Your task to perform on an android device: Open calendar and show me the third week of next month Image 0: 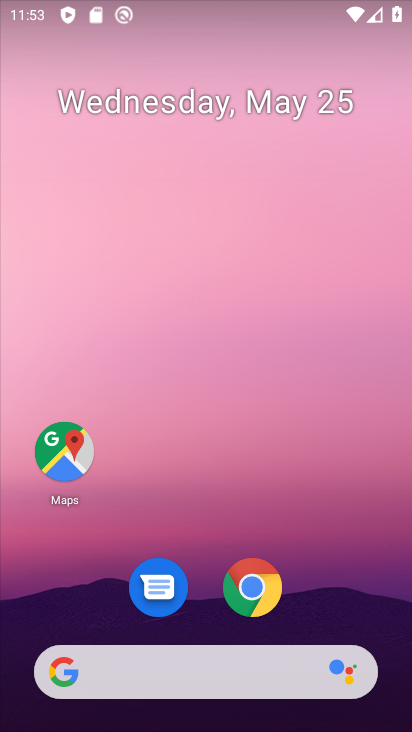
Step 0: drag from (201, 618) to (254, 123)
Your task to perform on an android device: Open calendar and show me the third week of next month Image 1: 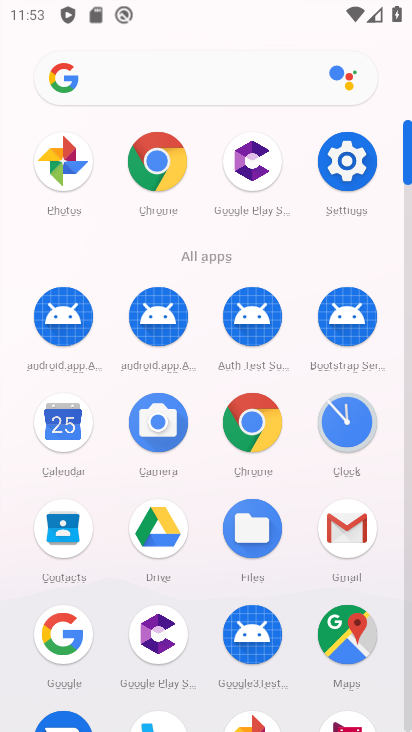
Step 1: click (63, 425)
Your task to perform on an android device: Open calendar and show me the third week of next month Image 2: 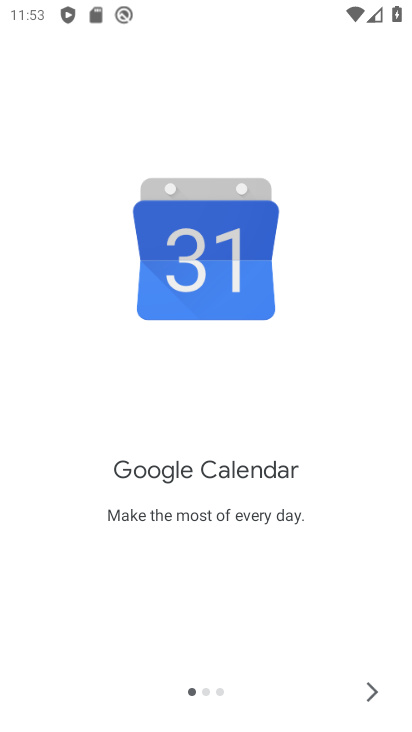
Step 2: click (362, 682)
Your task to perform on an android device: Open calendar and show me the third week of next month Image 3: 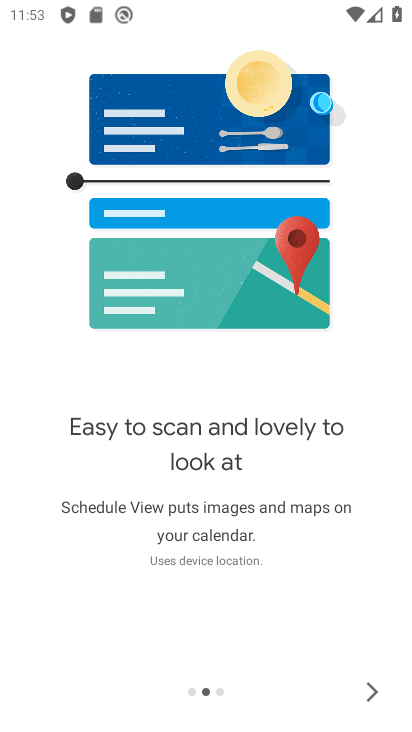
Step 3: click (362, 682)
Your task to perform on an android device: Open calendar and show me the third week of next month Image 4: 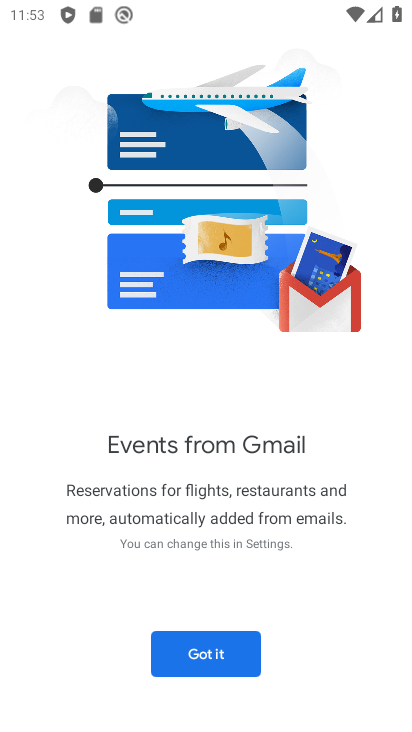
Step 4: click (209, 661)
Your task to perform on an android device: Open calendar and show me the third week of next month Image 5: 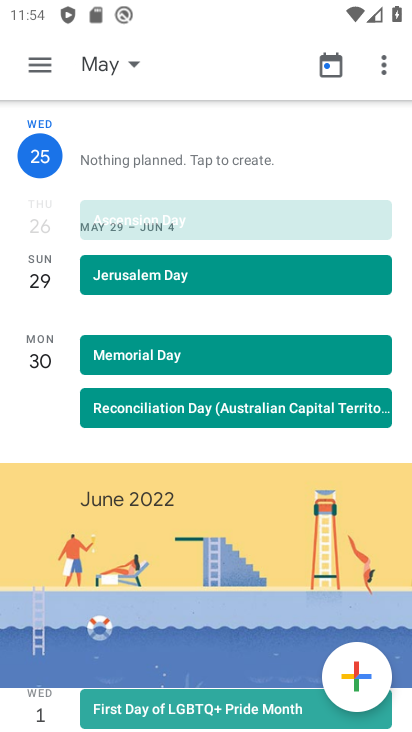
Step 5: click (136, 62)
Your task to perform on an android device: Open calendar and show me the third week of next month Image 6: 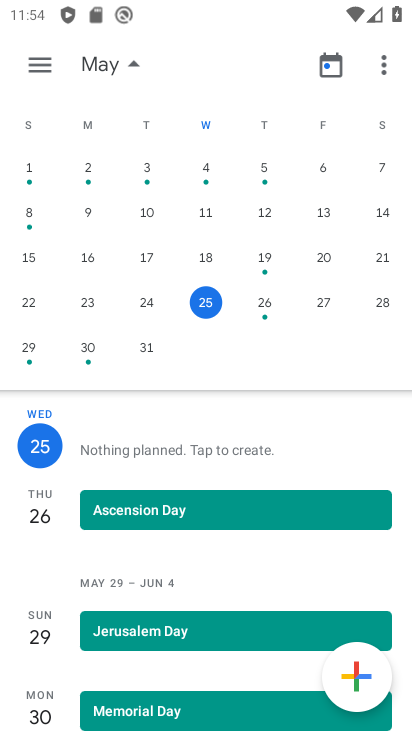
Step 6: drag from (350, 247) to (33, 235)
Your task to perform on an android device: Open calendar and show me the third week of next month Image 7: 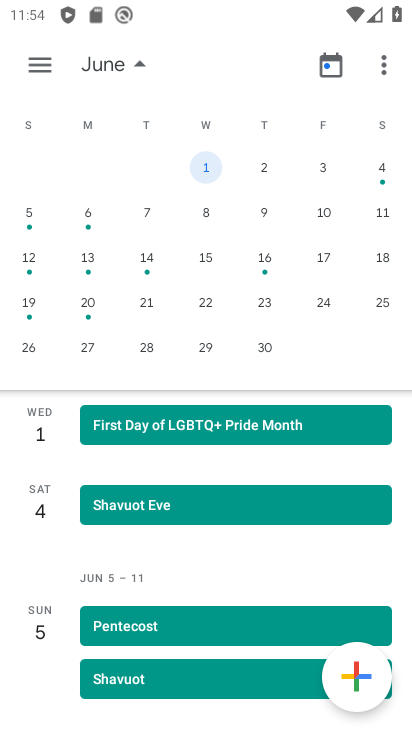
Step 7: click (33, 254)
Your task to perform on an android device: Open calendar and show me the third week of next month Image 8: 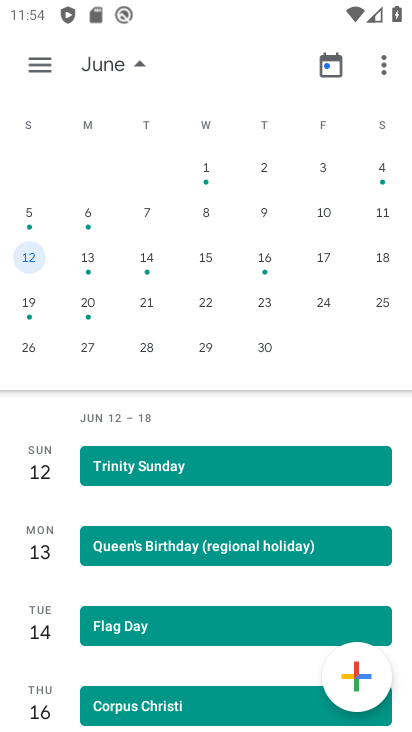
Step 8: click (137, 66)
Your task to perform on an android device: Open calendar and show me the third week of next month Image 9: 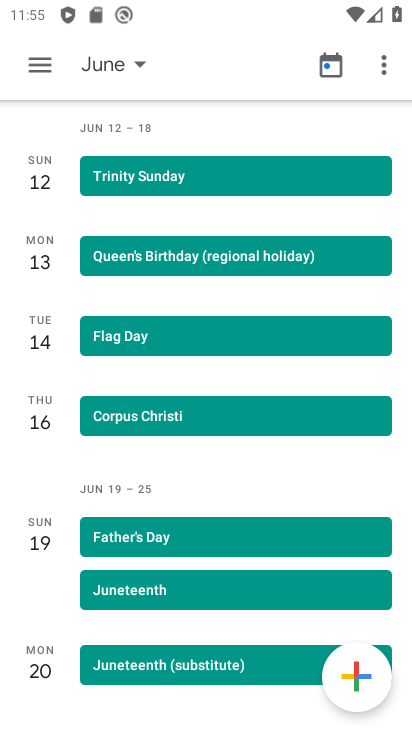
Step 9: task complete